Your task to perform on an android device: Open settings on Google Maps Image 0: 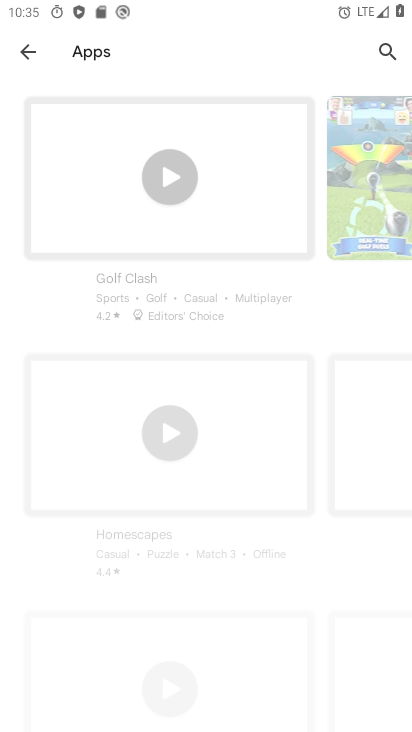
Step 0: press home button
Your task to perform on an android device: Open settings on Google Maps Image 1: 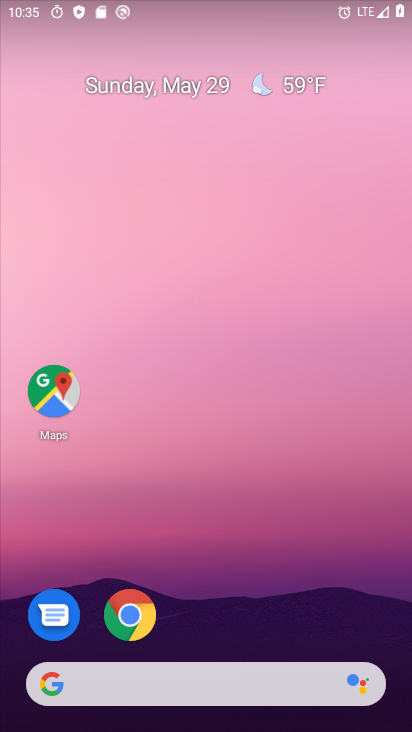
Step 1: click (54, 394)
Your task to perform on an android device: Open settings on Google Maps Image 2: 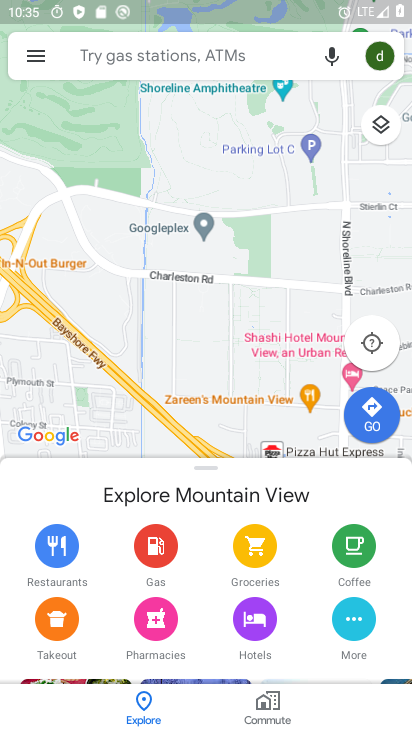
Step 2: click (39, 58)
Your task to perform on an android device: Open settings on Google Maps Image 3: 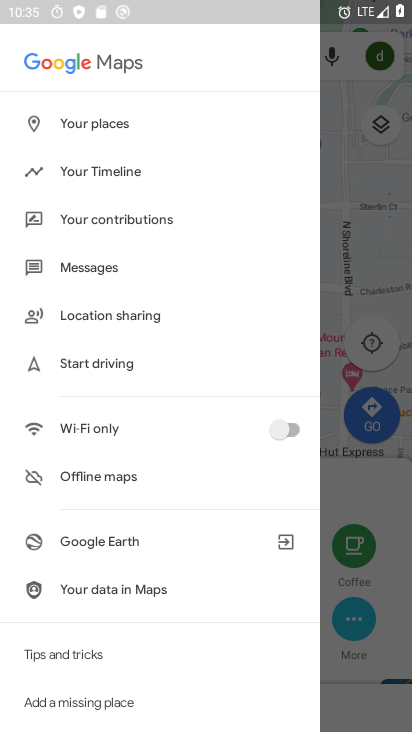
Step 3: drag from (162, 718) to (203, 239)
Your task to perform on an android device: Open settings on Google Maps Image 4: 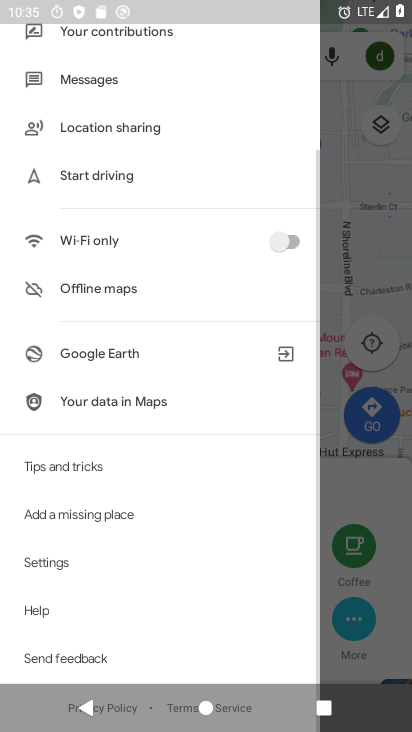
Step 4: click (62, 559)
Your task to perform on an android device: Open settings on Google Maps Image 5: 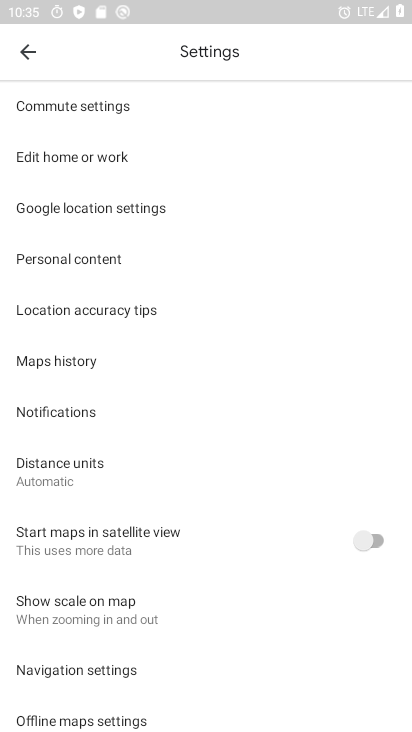
Step 5: task complete